Your task to perform on an android device: Open Google Image 0: 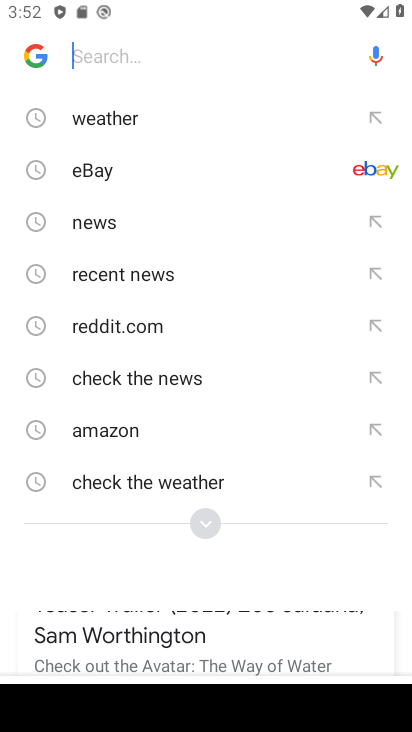
Step 0: press home button
Your task to perform on an android device: Open Google Image 1: 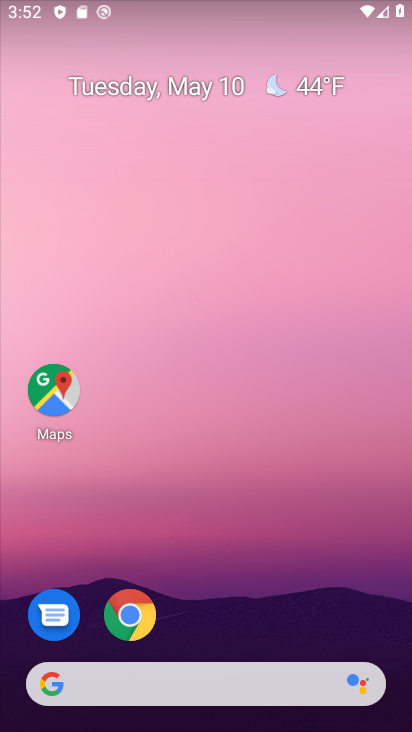
Step 1: drag from (195, 717) to (189, 259)
Your task to perform on an android device: Open Google Image 2: 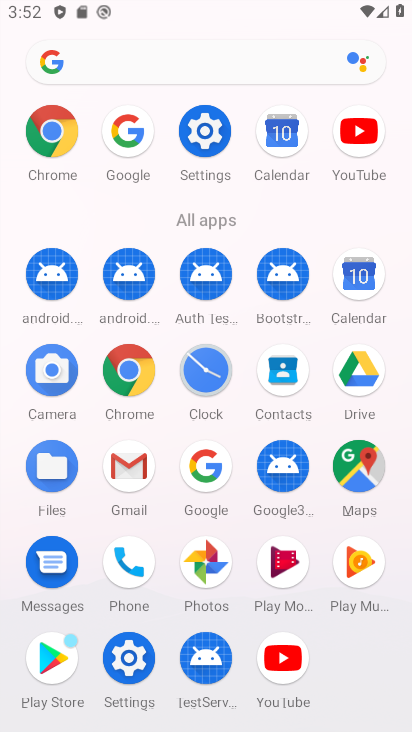
Step 2: click (206, 468)
Your task to perform on an android device: Open Google Image 3: 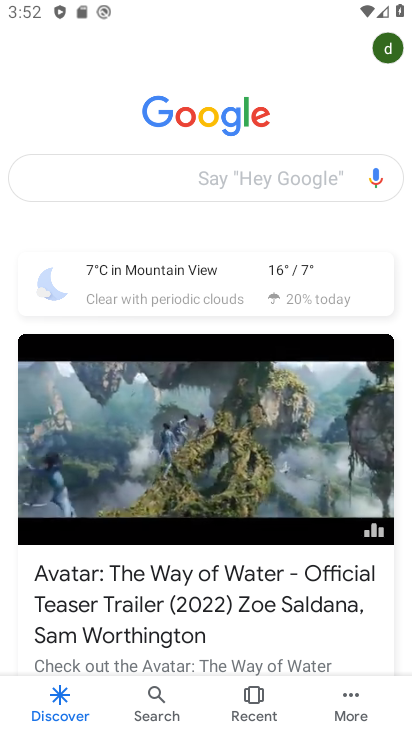
Step 3: task complete